Your task to perform on an android device: Open Google Image 0: 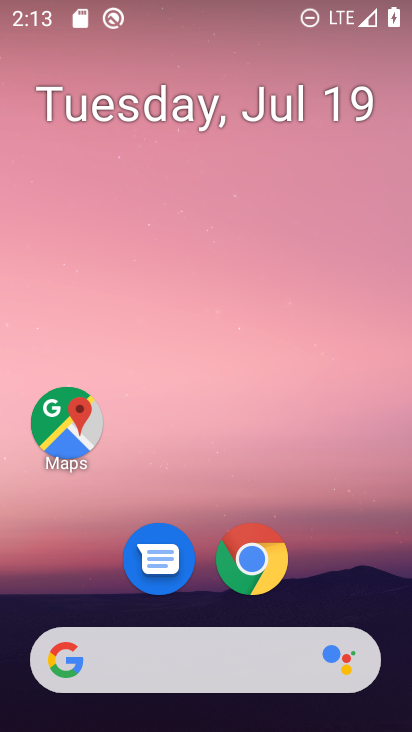
Step 0: drag from (233, 510) to (254, 141)
Your task to perform on an android device: Open Google Image 1: 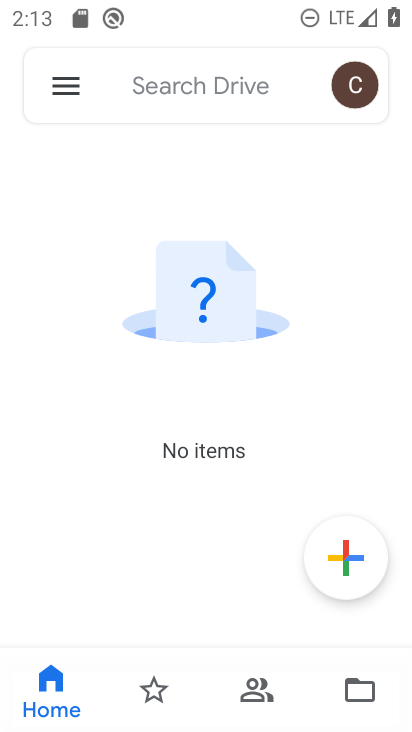
Step 1: press home button
Your task to perform on an android device: Open Google Image 2: 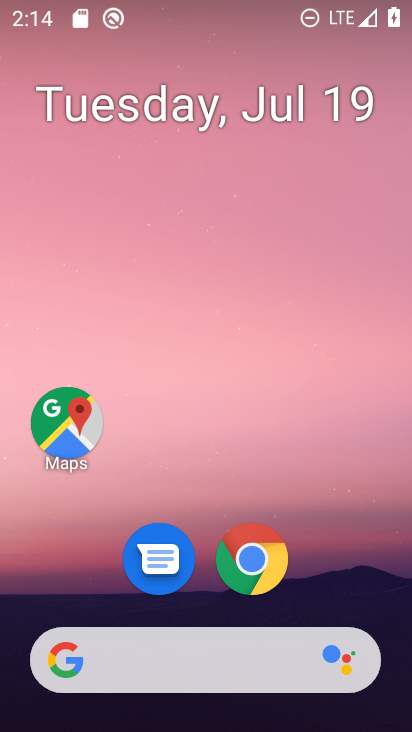
Step 2: drag from (211, 456) to (210, 92)
Your task to perform on an android device: Open Google Image 3: 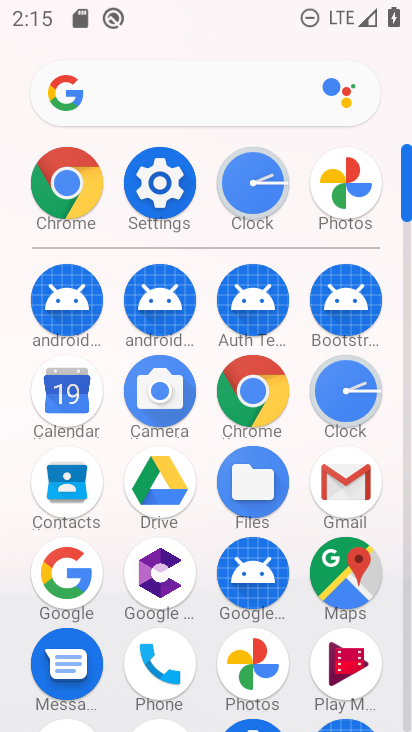
Step 3: click (66, 581)
Your task to perform on an android device: Open Google Image 4: 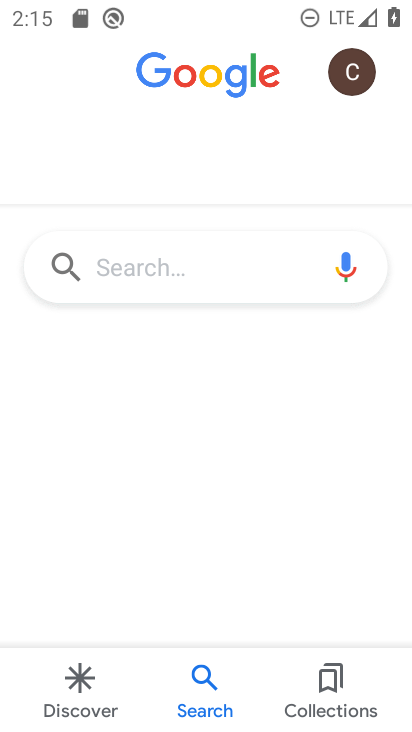
Step 4: task complete